Your task to perform on an android device: find snoozed emails in the gmail app Image 0: 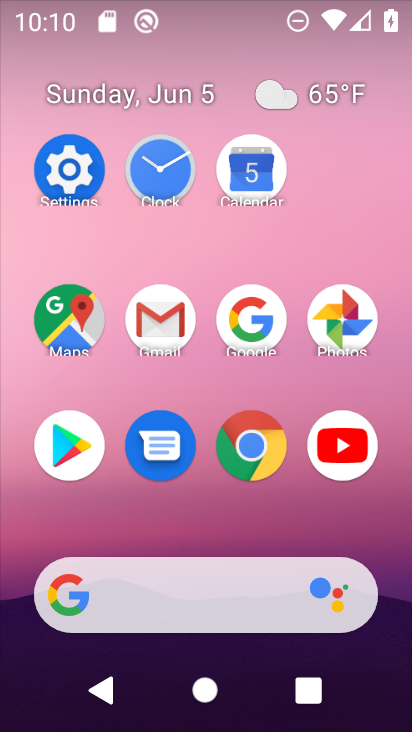
Step 0: click (179, 310)
Your task to perform on an android device: find snoozed emails in the gmail app Image 1: 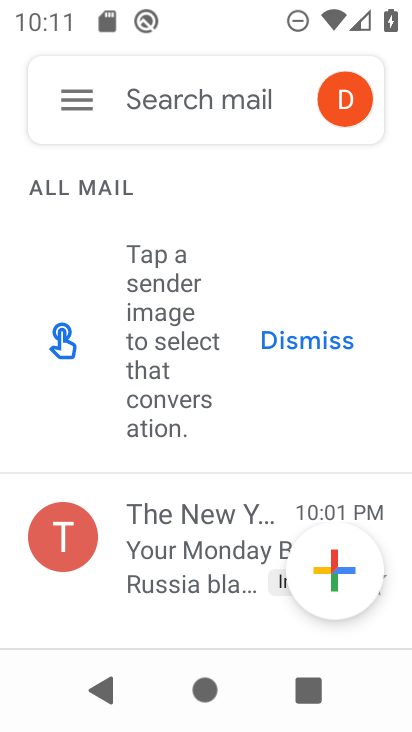
Step 1: click (48, 90)
Your task to perform on an android device: find snoozed emails in the gmail app Image 2: 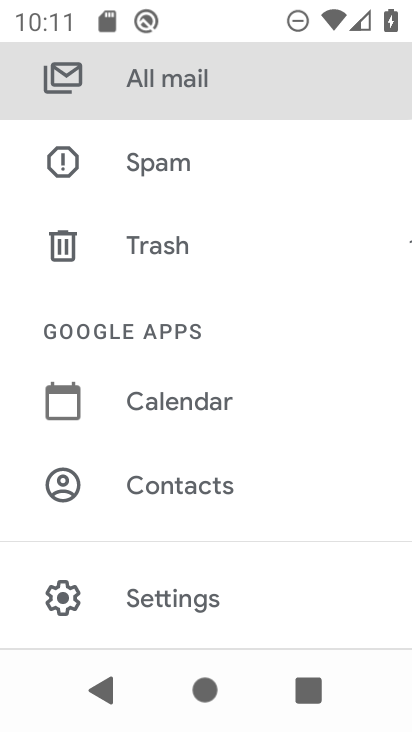
Step 2: drag from (159, 158) to (192, 540)
Your task to perform on an android device: find snoozed emails in the gmail app Image 3: 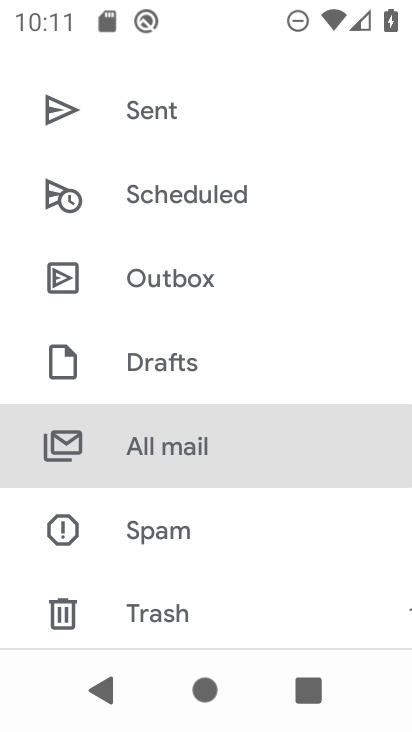
Step 3: drag from (246, 140) to (256, 550)
Your task to perform on an android device: find snoozed emails in the gmail app Image 4: 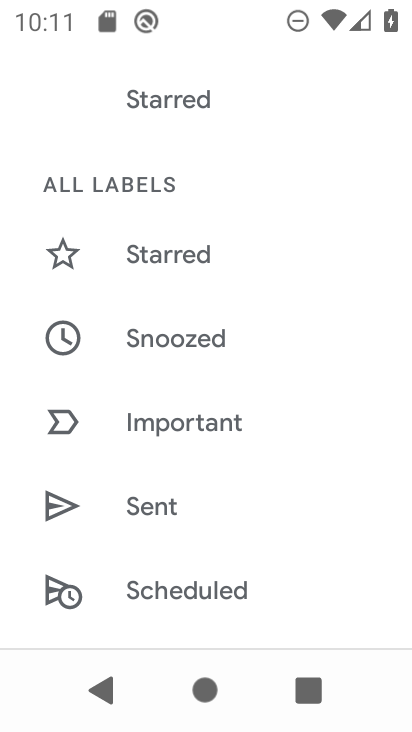
Step 4: drag from (190, 96) to (191, 537)
Your task to perform on an android device: find snoozed emails in the gmail app Image 5: 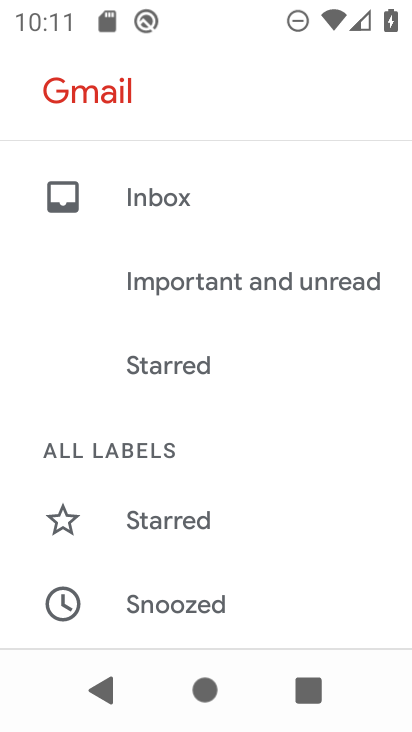
Step 5: click (189, 582)
Your task to perform on an android device: find snoozed emails in the gmail app Image 6: 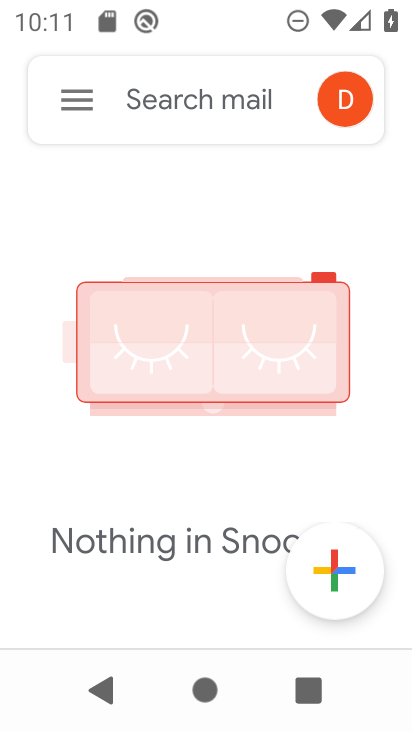
Step 6: task complete